Your task to perform on an android device: Go to notification settings Image 0: 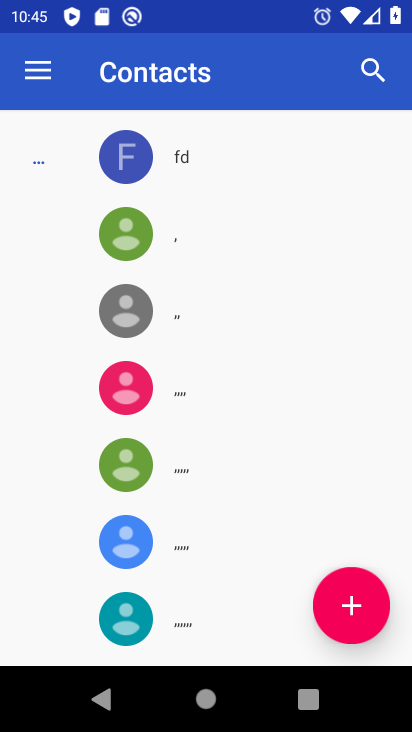
Step 0: press back button
Your task to perform on an android device: Go to notification settings Image 1: 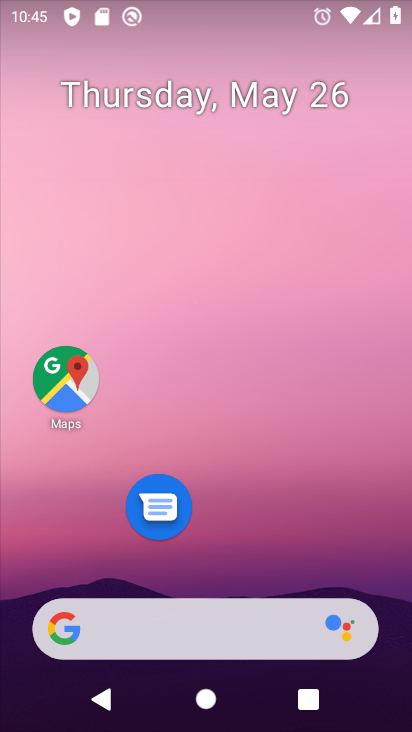
Step 1: drag from (246, 648) to (174, 27)
Your task to perform on an android device: Go to notification settings Image 2: 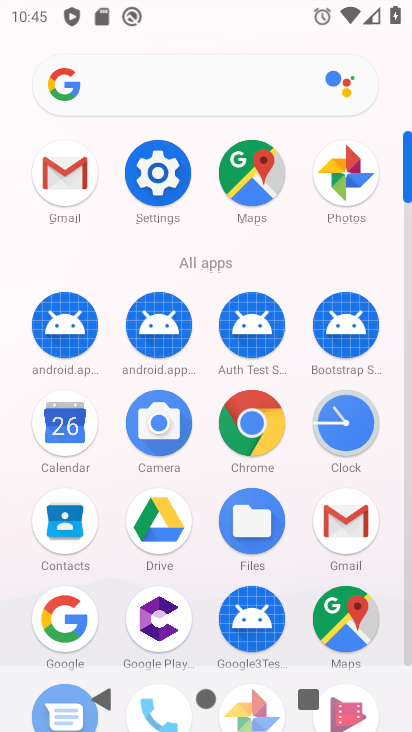
Step 2: click (152, 175)
Your task to perform on an android device: Go to notification settings Image 3: 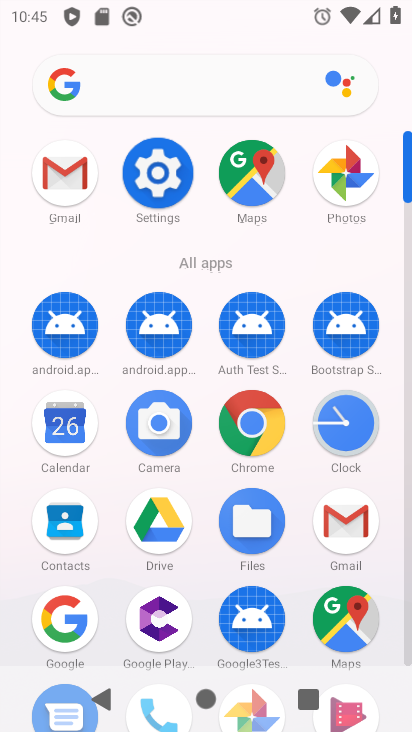
Step 3: click (154, 176)
Your task to perform on an android device: Go to notification settings Image 4: 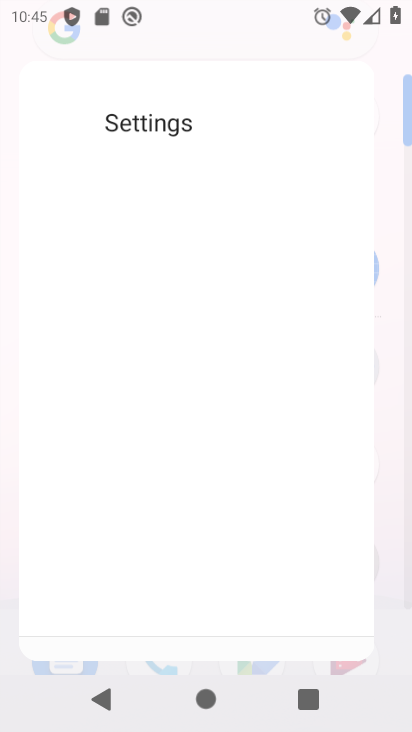
Step 4: click (154, 176)
Your task to perform on an android device: Go to notification settings Image 5: 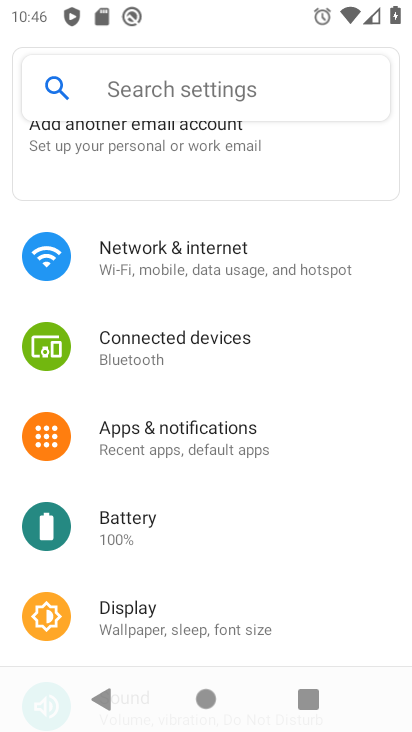
Step 5: click (145, 435)
Your task to perform on an android device: Go to notification settings Image 6: 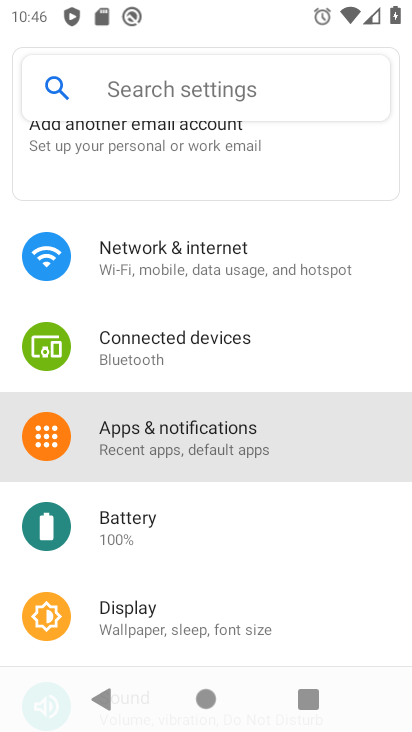
Step 6: click (150, 442)
Your task to perform on an android device: Go to notification settings Image 7: 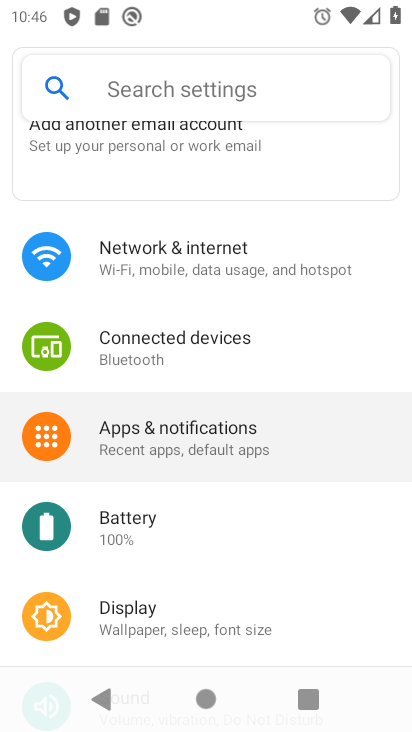
Step 7: click (145, 440)
Your task to perform on an android device: Go to notification settings Image 8: 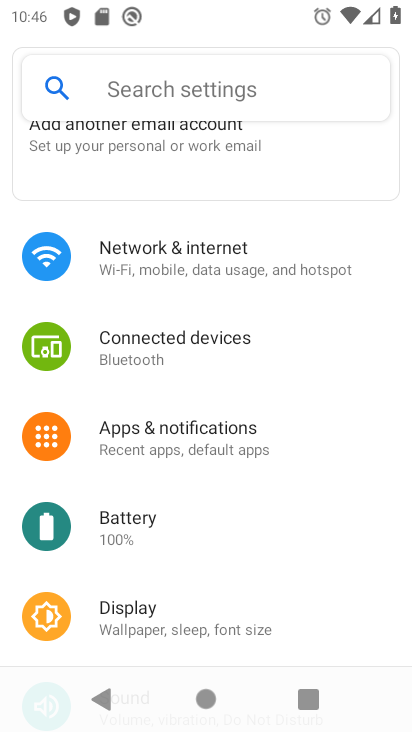
Step 8: click (176, 436)
Your task to perform on an android device: Go to notification settings Image 9: 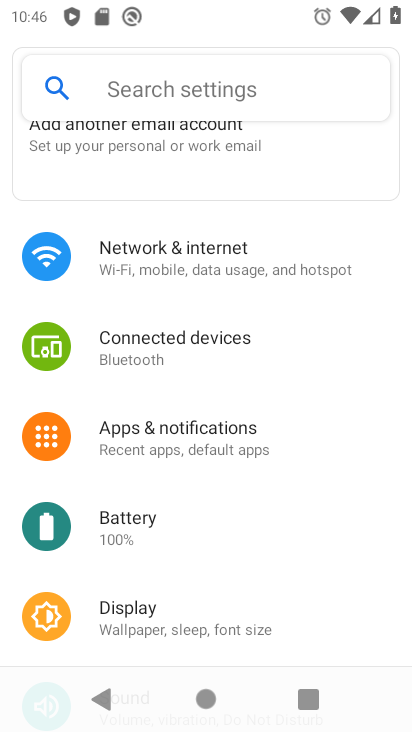
Step 9: click (176, 436)
Your task to perform on an android device: Go to notification settings Image 10: 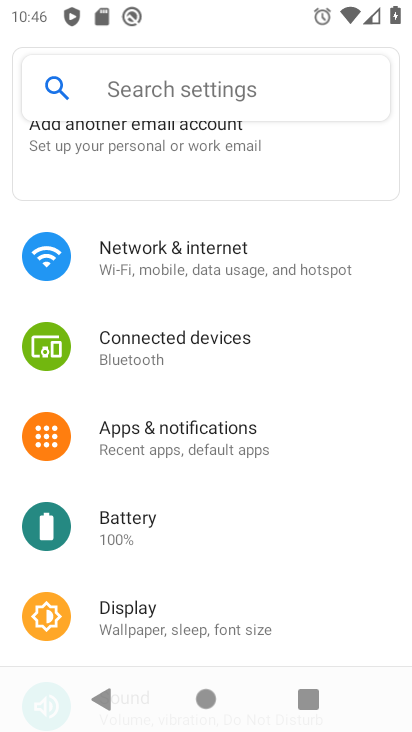
Step 10: click (173, 430)
Your task to perform on an android device: Go to notification settings Image 11: 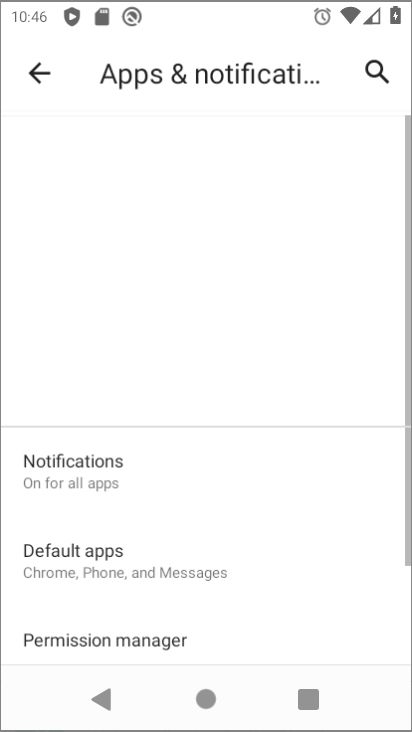
Step 11: click (178, 431)
Your task to perform on an android device: Go to notification settings Image 12: 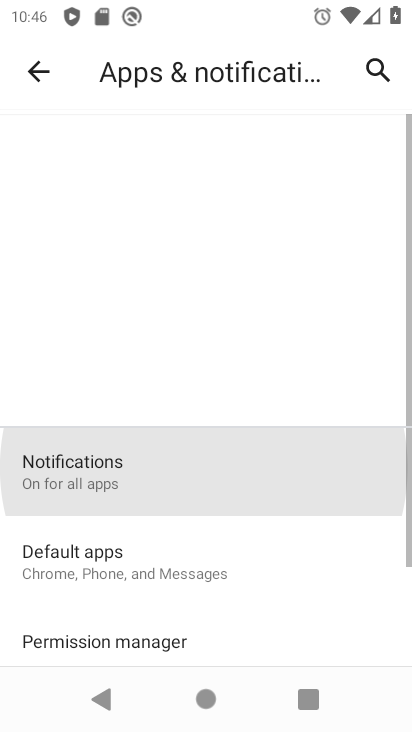
Step 12: click (187, 436)
Your task to perform on an android device: Go to notification settings Image 13: 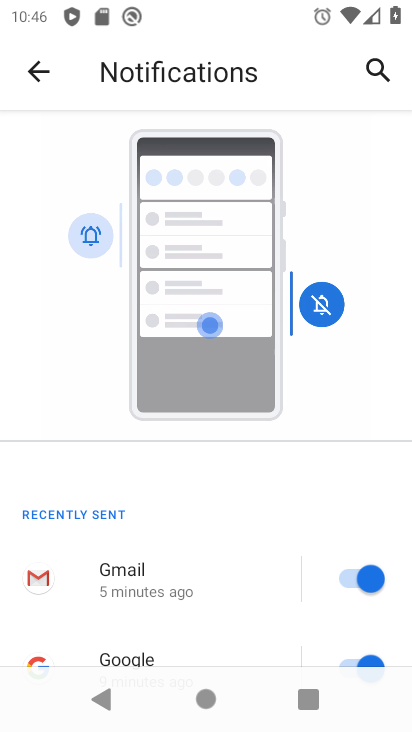
Step 13: click (32, 72)
Your task to perform on an android device: Go to notification settings Image 14: 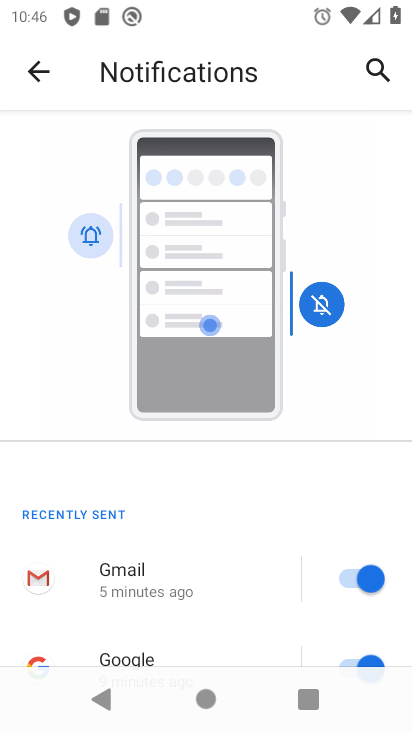
Step 14: click (31, 71)
Your task to perform on an android device: Go to notification settings Image 15: 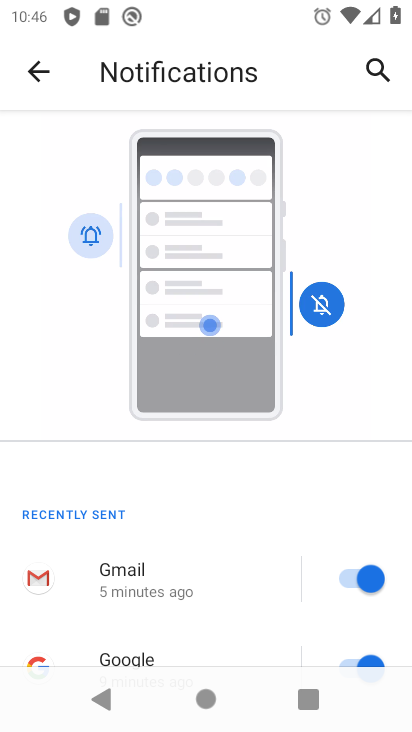
Step 15: click (32, 70)
Your task to perform on an android device: Go to notification settings Image 16: 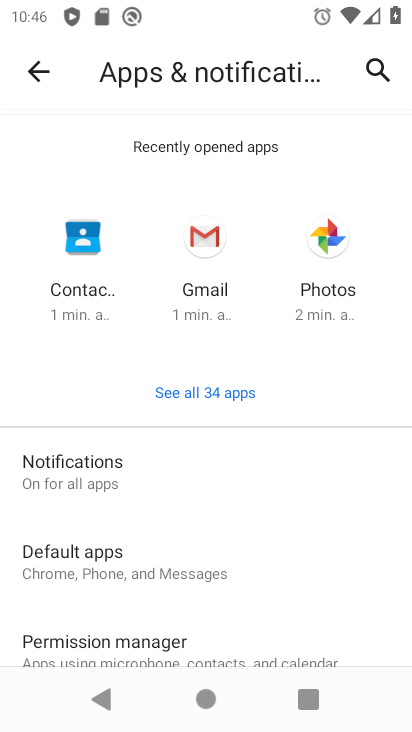
Step 16: click (60, 480)
Your task to perform on an android device: Go to notification settings Image 17: 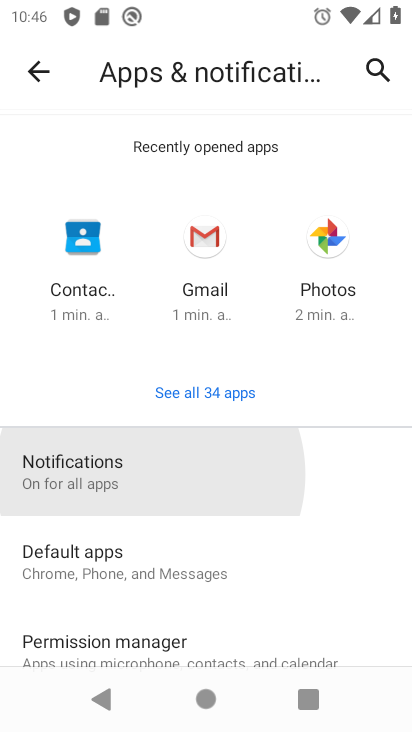
Step 17: click (68, 473)
Your task to perform on an android device: Go to notification settings Image 18: 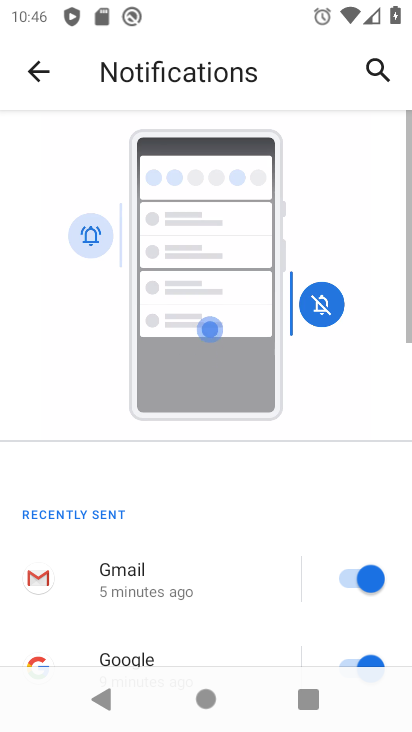
Step 18: click (74, 468)
Your task to perform on an android device: Go to notification settings Image 19: 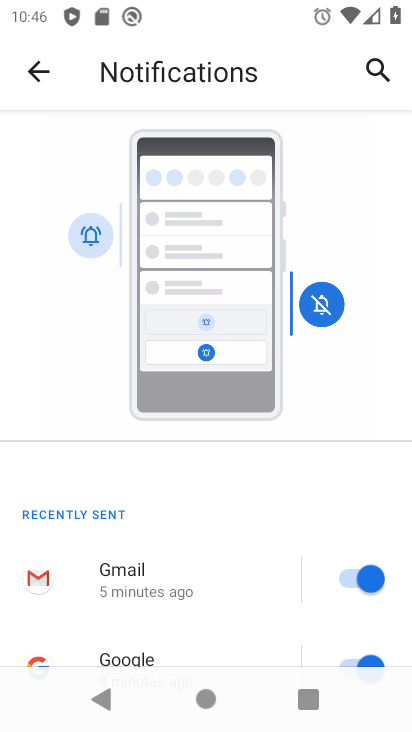
Step 19: drag from (162, 586) to (179, 127)
Your task to perform on an android device: Go to notification settings Image 20: 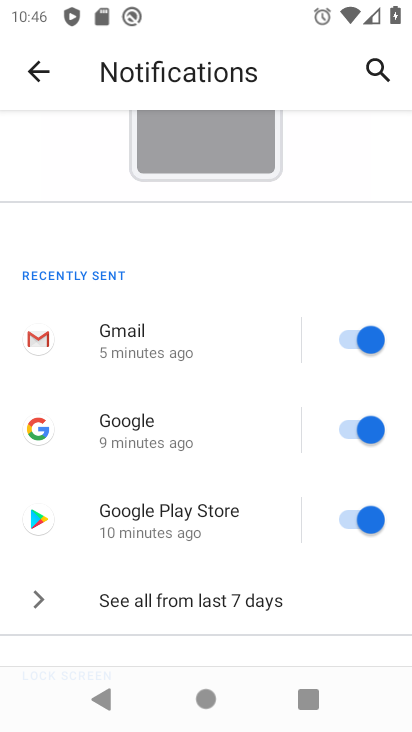
Step 20: drag from (189, 524) to (334, 10)
Your task to perform on an android device: Go to notification settings Image 21: 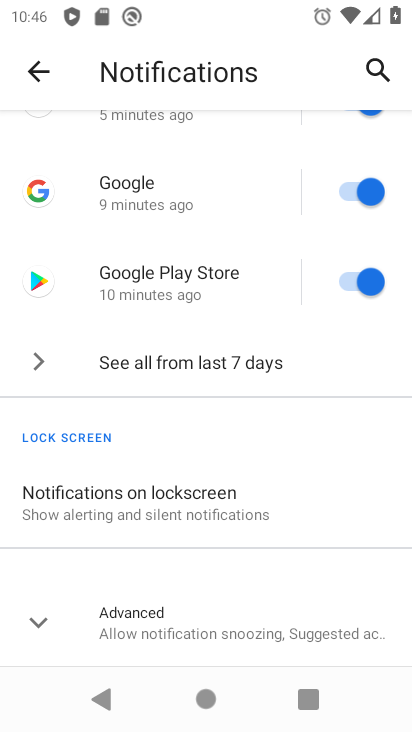
Step 21: click (113, 30)
Your task to perform on an android device: Go to notification settings Image 22: 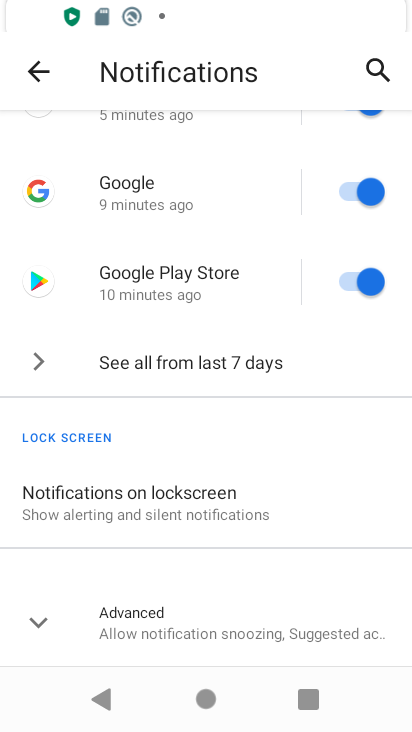
Step 22: drag from (179, 423) to (158, 49)
Your task to perform on an android device: Go to notification settings Image 23: 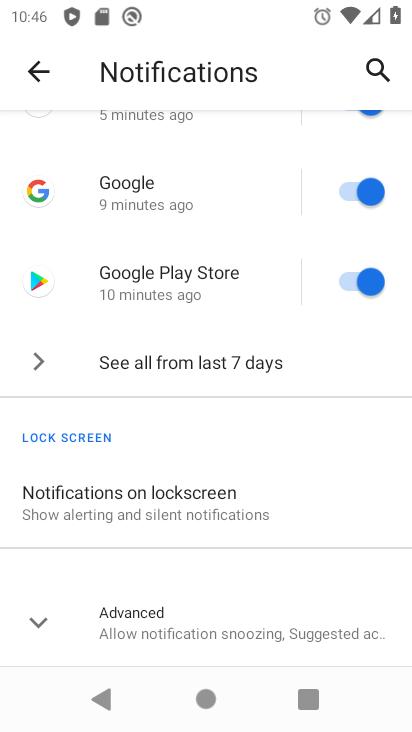
Step 23: drag from (189, 432) to (165, 155)
Your task to perform on an android device: Go to notification settings Image 24: 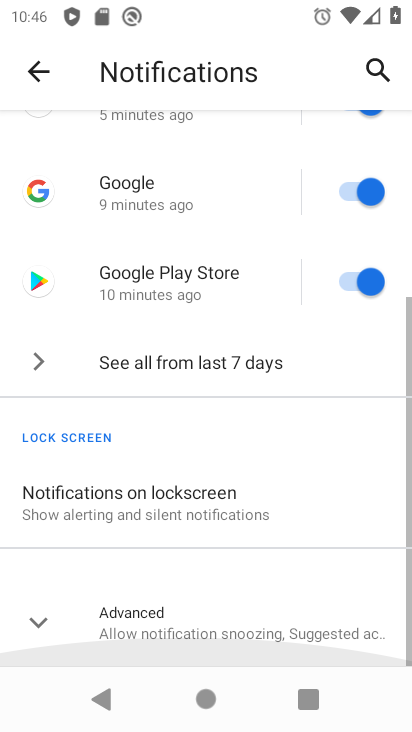
Step 24: drag from (168, 416) to (213, 149)
Your task to perform on an android device: Go to notification settings Image 25: 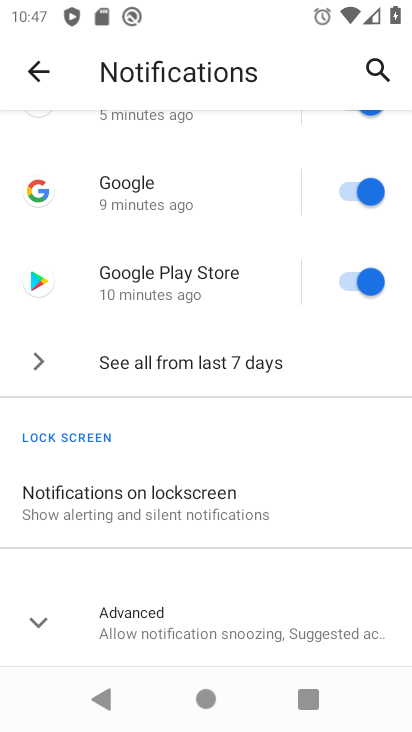
Step 25: click (97, 498)
Your task to perform on an android device: Go to notification settings Image 26: 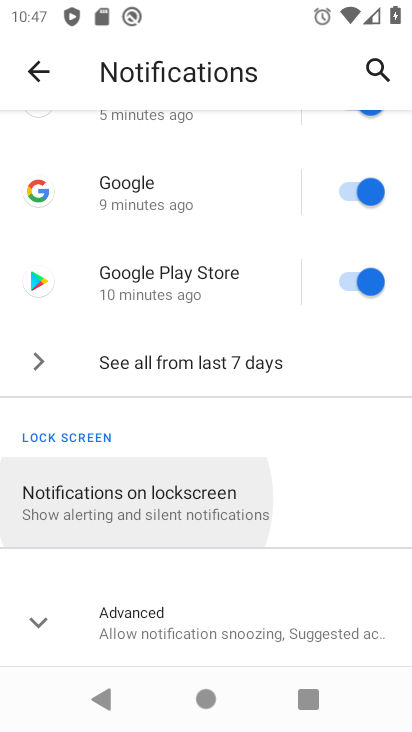
Step 26: click (96, 495)
Your task to perform on an android device: Go to notification settings Image 27: 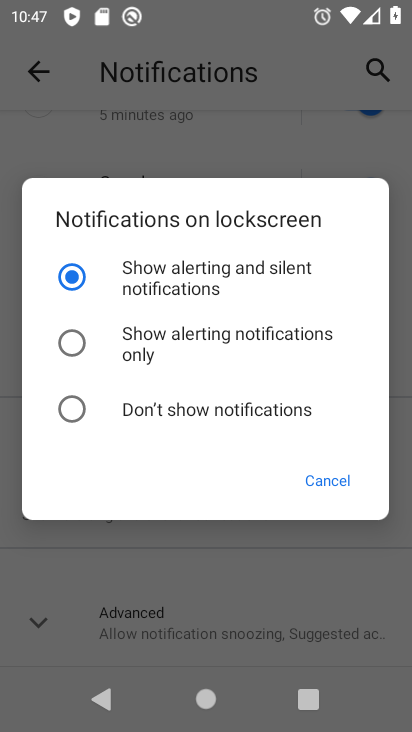
Step 27: click (339, 478)
Your task to perform on an android device: Go to notification settings Image 28: 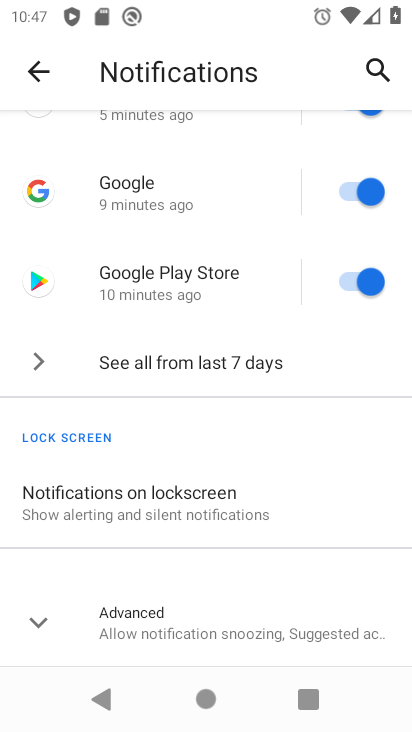
Step 28: task complete